Your task to perform on an android device: turn on priority inbox in the gmail app Image 0: 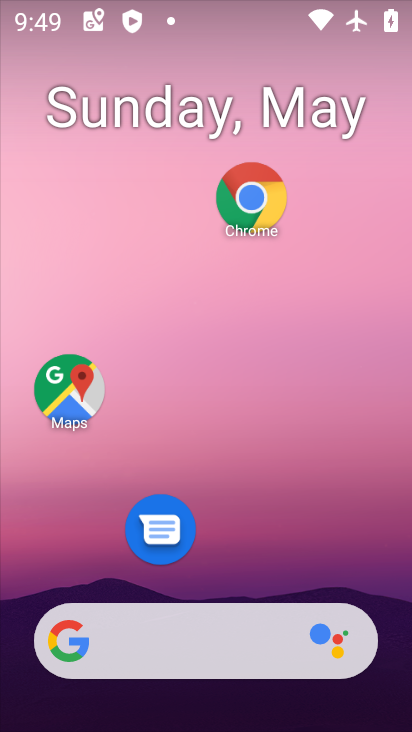
Step 0: drag from (275, 560) to (264, 63)
Your task to perform on an android device: turn on priority inbox in the gmail app Image 1: 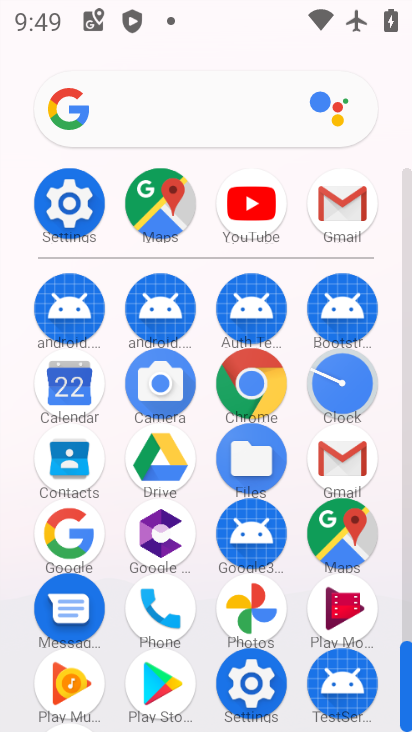
Step 1: click (359, 450)
Your task to perform on an android device: turn on priority inbox in the gmail app Image 2: 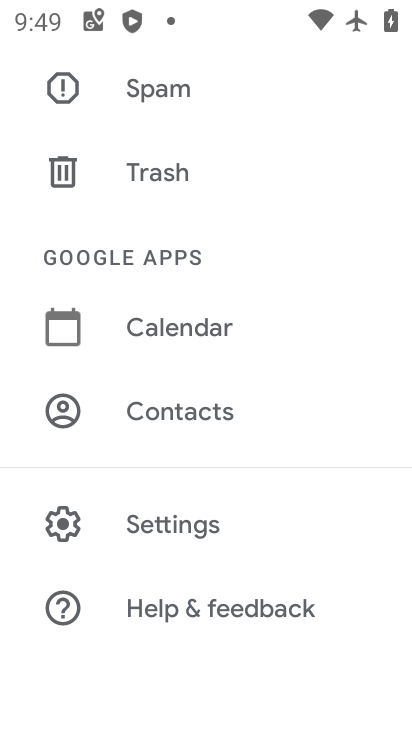
Step 2: click (110, 507)
Your task to perform on an android device: turn on priority inbox in the gmail app Image 3: 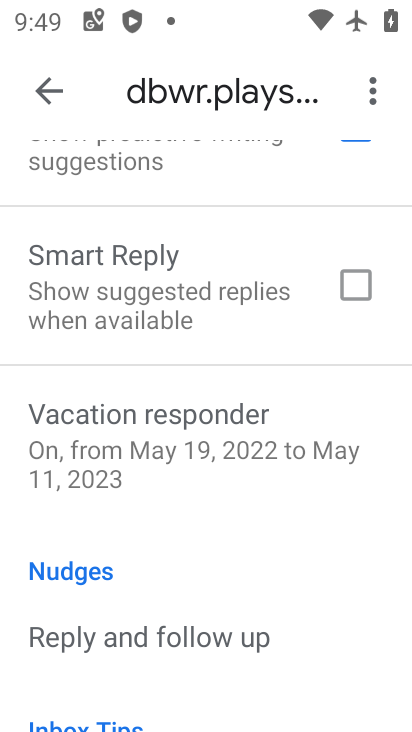
Step 3: drag from (128, 404) to (130, 604)
Your task to perform on an android device: turn on priority inbox in the gmail app Image 4: 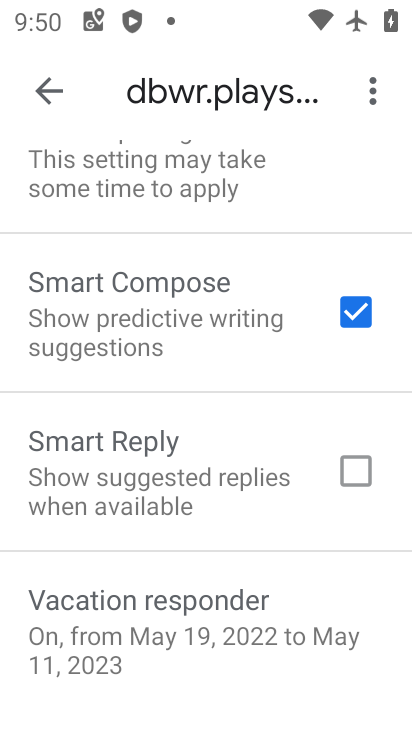
Step 4: drag from (189, 334) to (192, 553)
Your task to perform on an android device: turn on priority inbox in the gmail app Image 5: 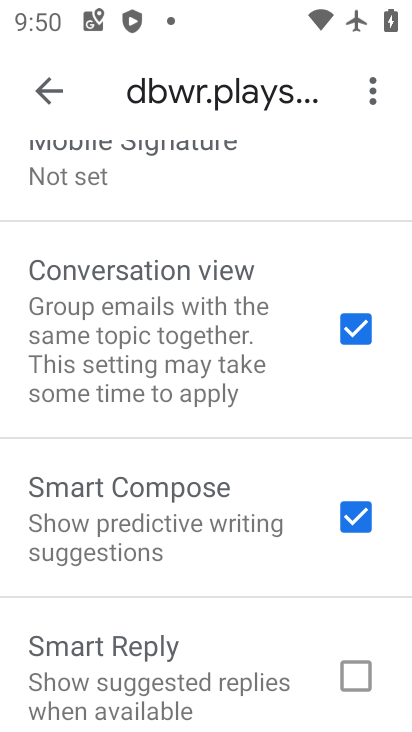
Step 5: drag from (216, 270) to (202, 556)
Your task to perform on an android device: turn on priority inbox in the gmail app Image 6: 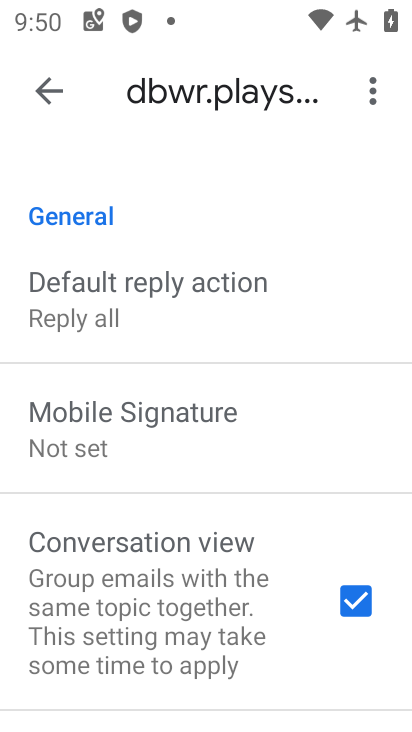
Step 6: drag from (197, 341) to (168, 610)
Your task to perform on an android device: turn on priority inbox in the gmail app Image 7: 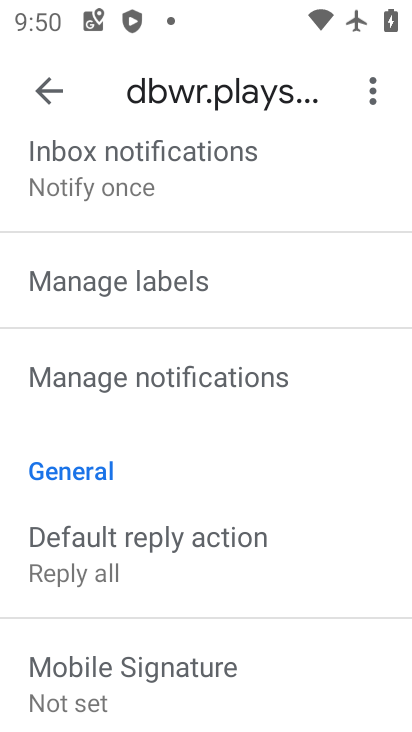
Step 7: drag from (186, 320) to (197, 623)
Your task to perform on an android device: turn on priority inbox in the gmail app Image 8: 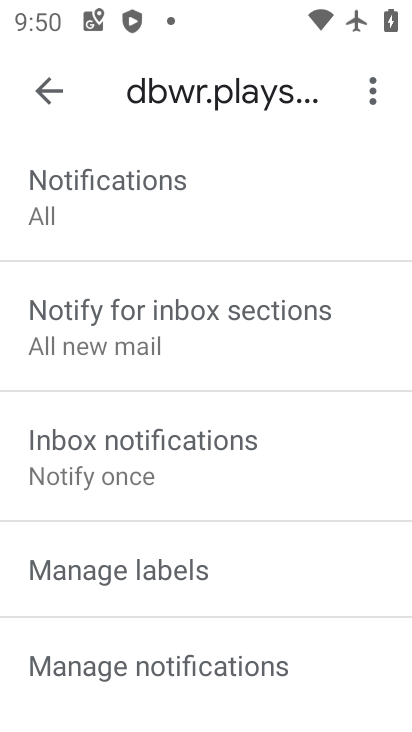
Step 8: drag from (214, 331) to (196, 526)
Your task to perform on an android device: turn on priority inbox in the gmail app Image 9: 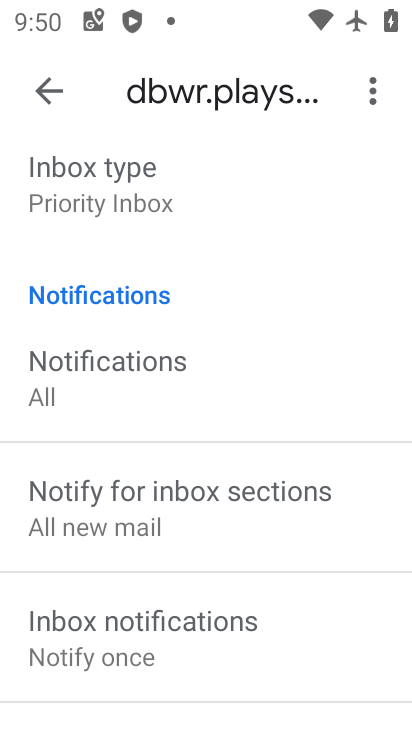
Step 9: drag from (185, 348) to (160, 499)
Your task to perform on an android device: turn on priority inbox in the gmail app Image 10: 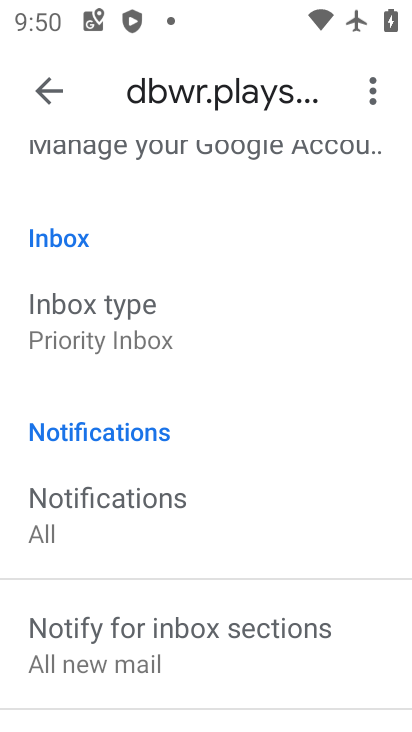
Step 10: click (135, 325)
Your task to perform on an android device: turn on priority inbox in the gmail app Image 11: 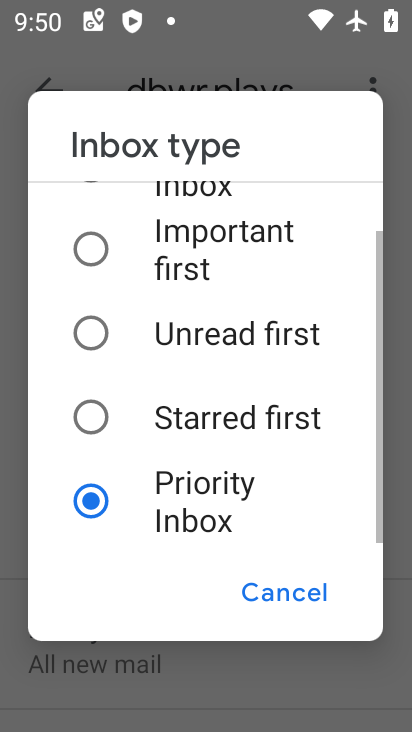
Step 11: click (141, 501)
Your task to perform on an android device: turn on priority inbox in the gmail app Image 12: 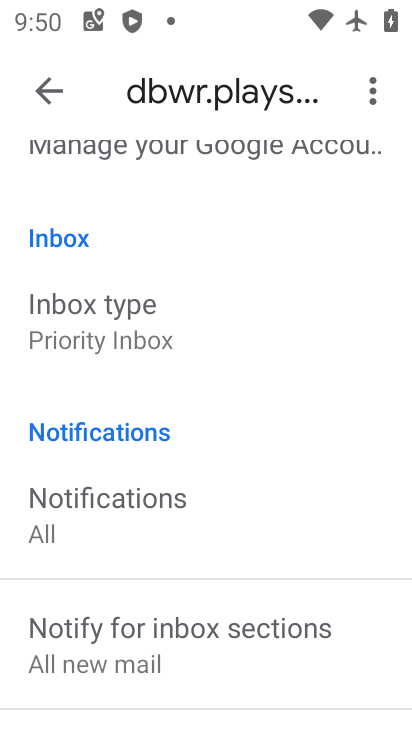
Step 12: task complete